Your task to perform on an android device: read, delete, or share a saved page in the chrome app Image 0: 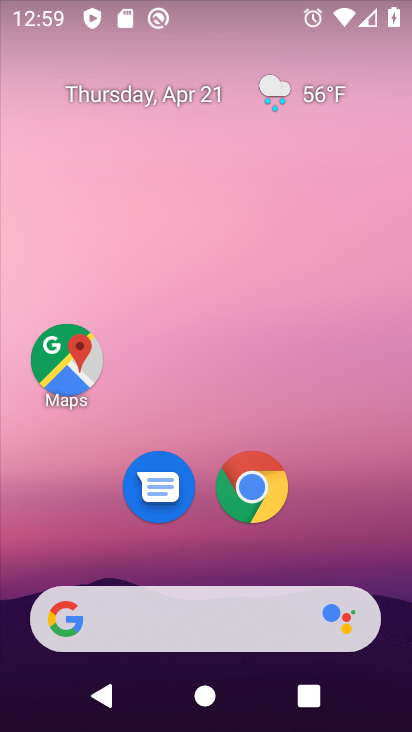
Step 0: drag from (306, 540) to (265, 506)
Your task to perform on an android device: read, delete, or share a saved page in the chrome app Image 1: 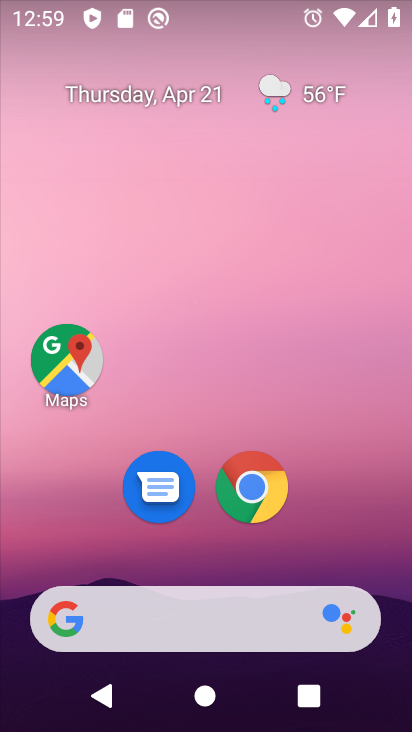
Step 1: click (257, 491)
Your task to perform on an android device: read, delete, or share a saved page in the chrome app Image 2: 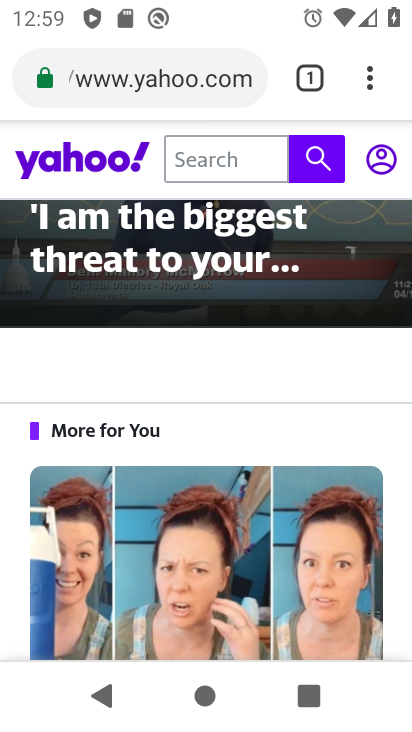
Step 2: task complete